Your task to perform on an android device: Open the map Image 0: 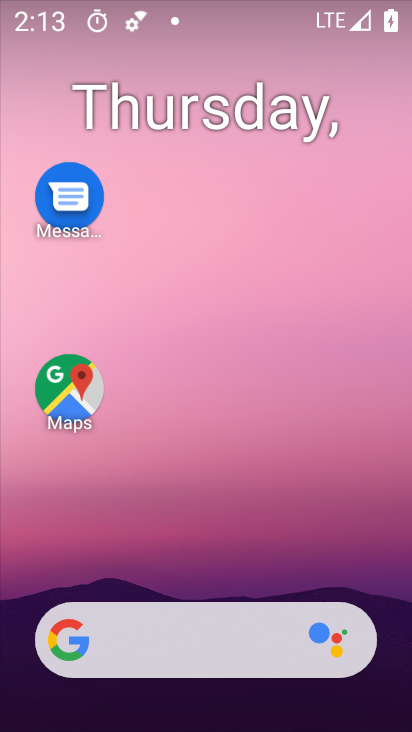
Step 0: click (71, 389)
Your task to perform on an android device: Open the map Image 1: 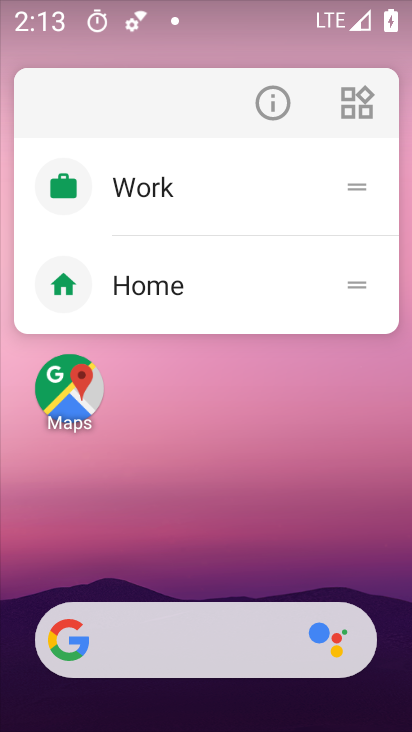
Step 1: click (285, 96)
Your task to perform on an android device: Open the map Image 2: 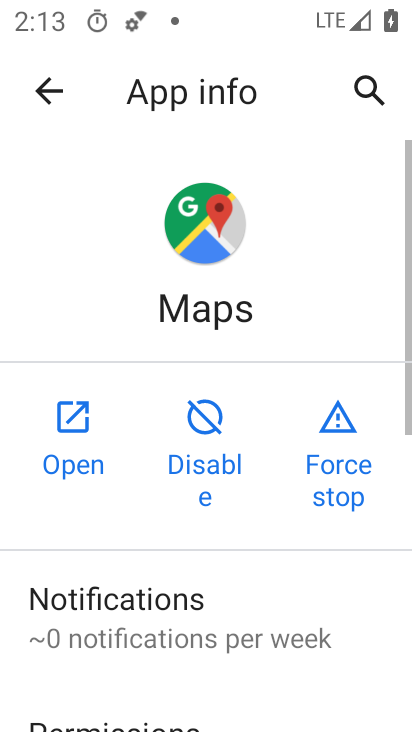
Step 2: click (71, 431)
Your task to perform on an android device: Open the map Image 3: 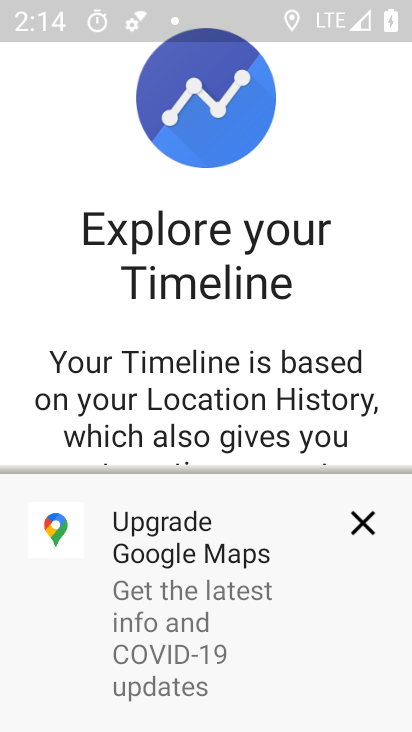
Step 3: click (358, 531)
Your task to perform on an android device: Open the map Image 4: 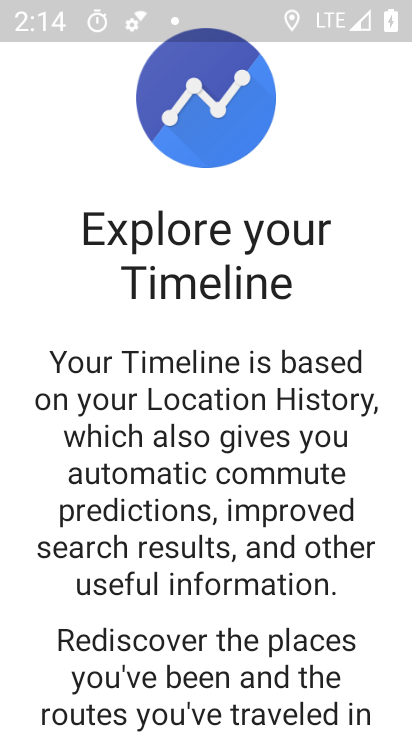
Step 4: task complete